Your task to perform on an android device: Look up the best selling patio furniture on Home Depot Image 0: 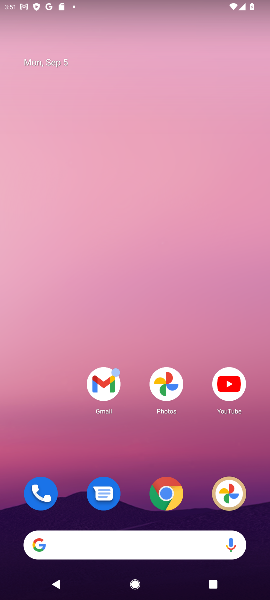
Step 0: click (254, 170)
Your task to perform on an android device: Look up the best selling patio furniture on Home Depot Image 1: 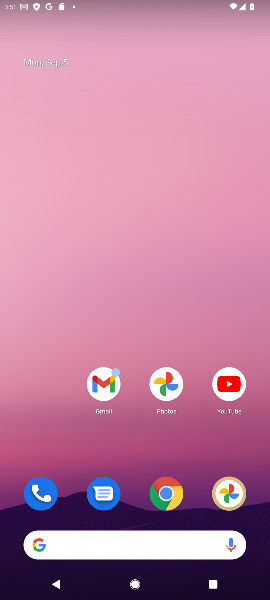
Step 1: drag from (136, 448) to (68, 48)
Your task to perform on an android device: Look up the best selling patio furniture on Home Depot Image 2: 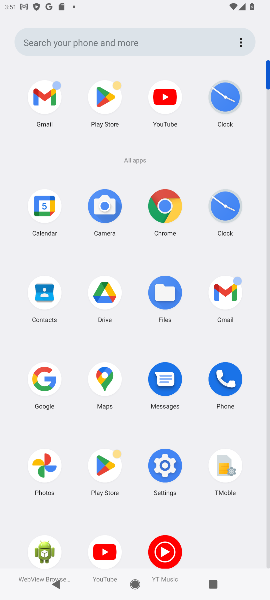
Step 2: click (103, 466)
Your task to perform on an android device: Look up the best selling patio furniture on Home Depot Image 3: 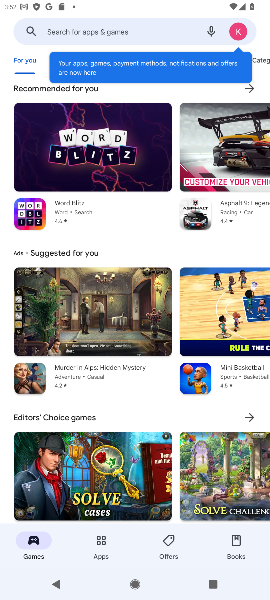
Step 3: press home button
Your task to perform on an android device: Look up the best selling patio furniture on Home Depot Image 4: 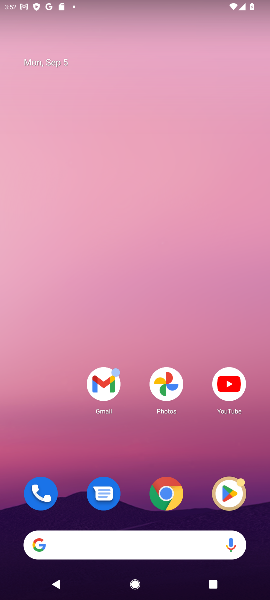
Step 4: drag from (143, 452) to (227, 18)
Your task to perform on an android device: Look up the best selling patio furniture on Home Depot Image 5: 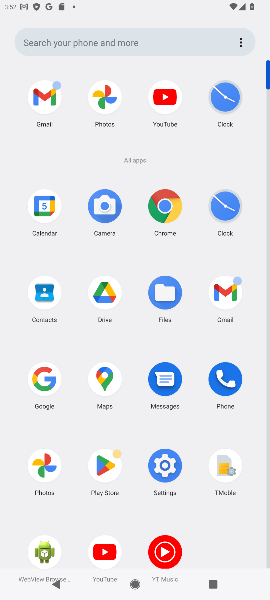
Step 5: click (170, 195)
Your task to perform on an android device: Look up the best selling patio furniture on Home Depot Image 6: 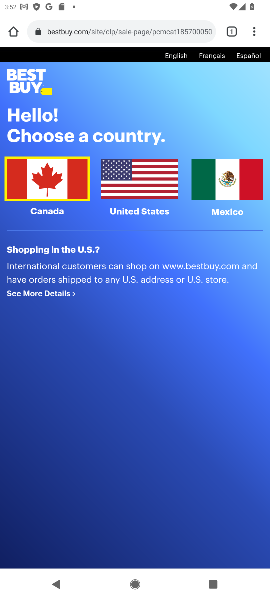
Step 6: click (98, 32)
Your task to perform on an android device: Look up the best selling patio furniture on Home Depot Image 7: 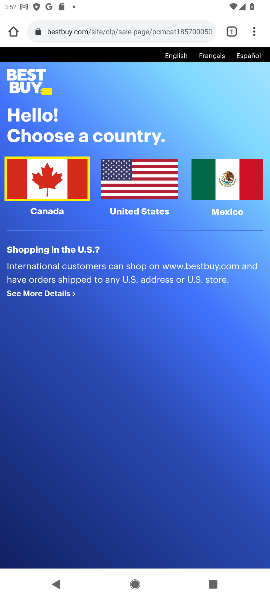
Step 7: click (92, 23)
Your task to perform on an android device: Look up the best selling patio furniture on Home Depot Image 8: 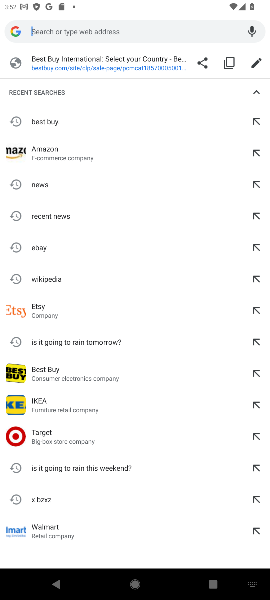
Step 8: type "Home Depot"
Your task to perform on an android device: Look up the best selling patio furniture on Home Depot Image 9: 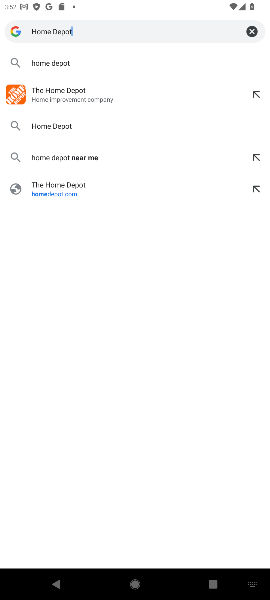
Step 9: click (52, 65)
Your task to perform on an android device: Look up the best selling patio furniture on Home Depot Image 10: 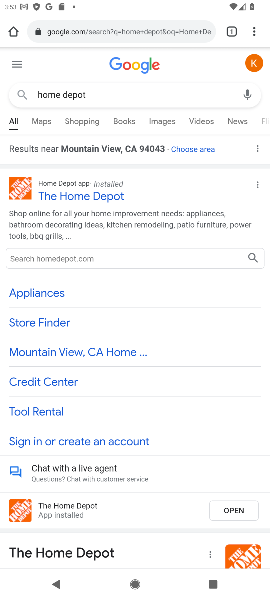
Step 10: click (76, 199)
Your task to perform on an android device: Look up the best selling patio furniture on Home Depot Image 11: 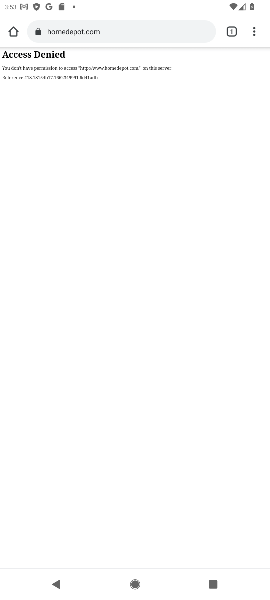
Step 11: task complete